Your task to perform on an android device: toggle wifi Image 0: 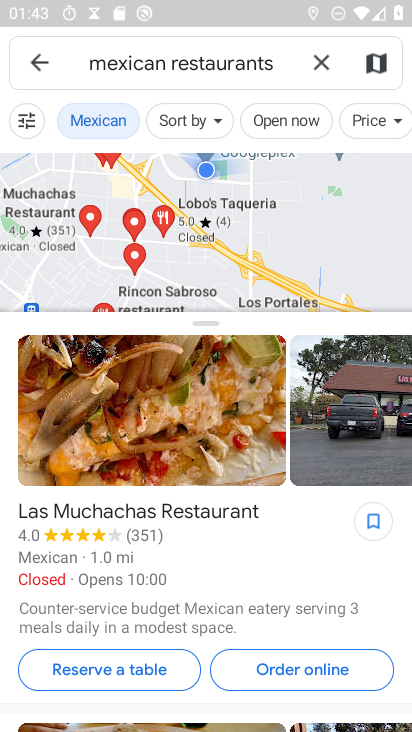
Step 0: press home button
Your task to perform on an android device: toggle wifi Image 1: 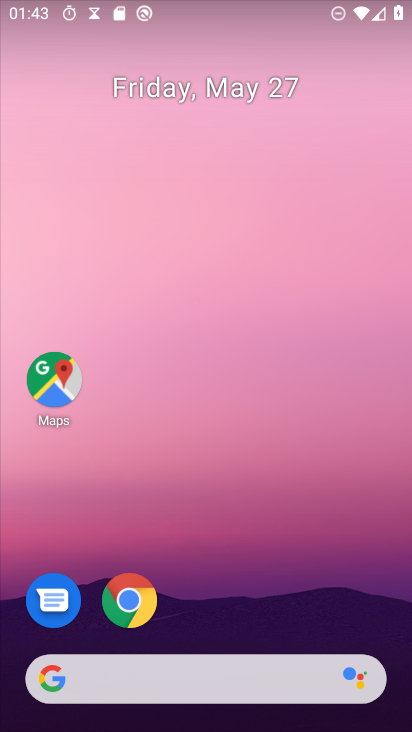
Step 1: drag from (333, 520) to (333, 103)
Your task to perform on an android device: toggle wifi Image 2: 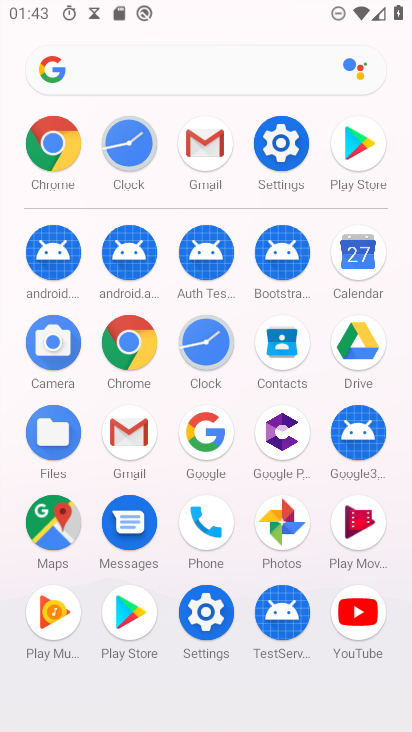
Step 2: click (282, 145)
Your task to perform on an android device: toggle wifi Image 3: 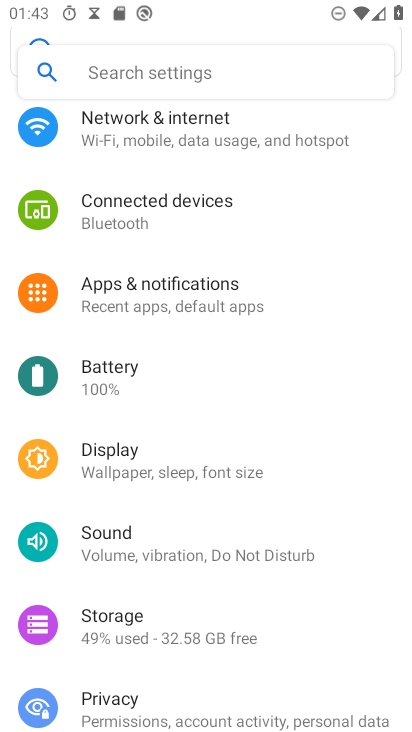
Step 3: click (265, 147)
Your task to perform on an android device: toggle wifi Image 4: 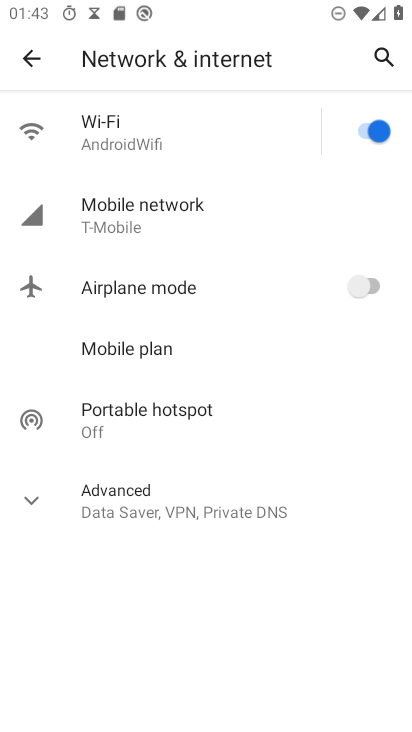
Step 4: click (361, 127)
Your task to perform on an android device: toggle wifi Image 5: 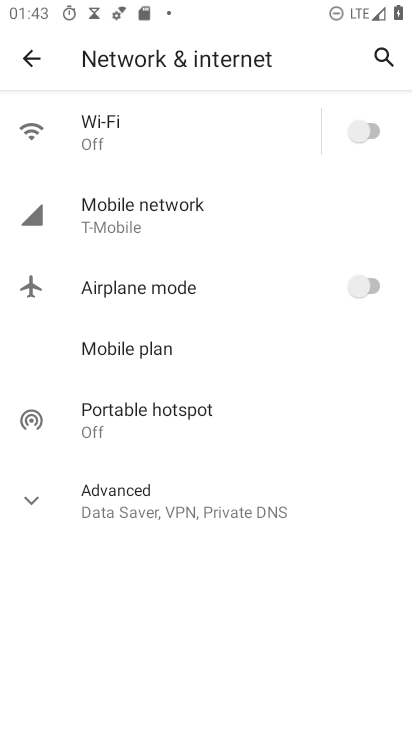
Step 5: task complete